Your task to perform on an android device: turn off location history Image 0: 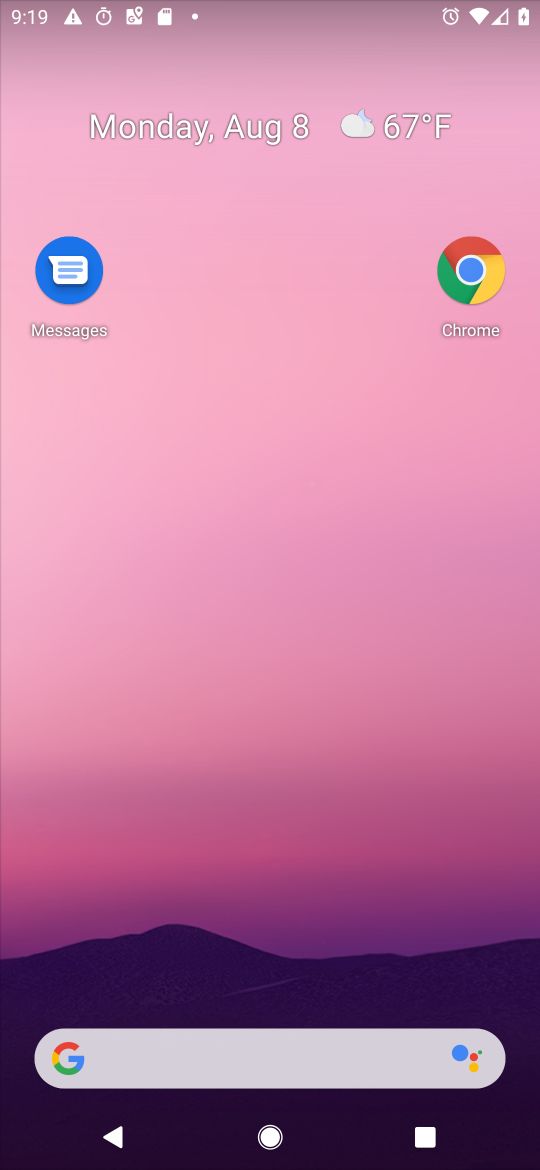
Step 0: drag from (222, 922) to (226, 249)
Your task to perform on an android device: turn off location history Image 1: 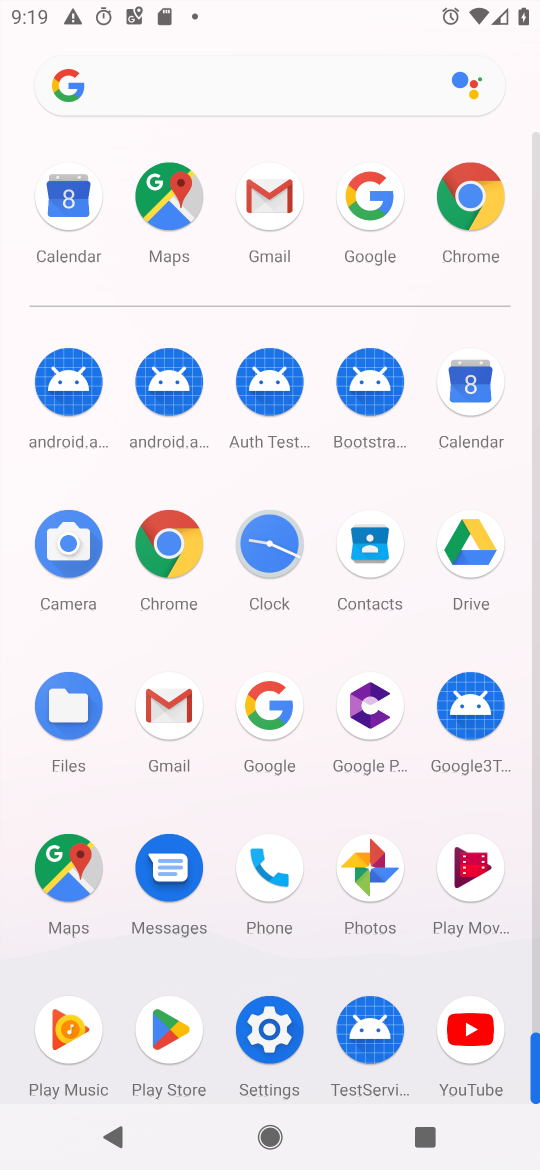
Step 1: drag from (337, 943) to (328, 431)
Your task to perform on an android device: turn off location history Image 2: 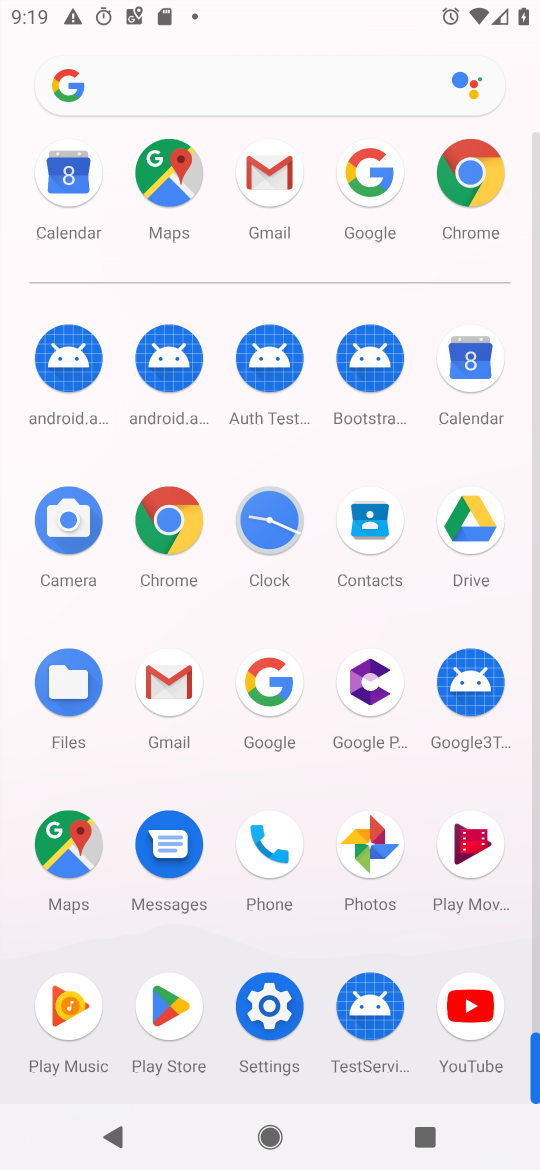
Step 2: click (261, 1002)
Your task to perform on an android device: turn off location history Image 3: 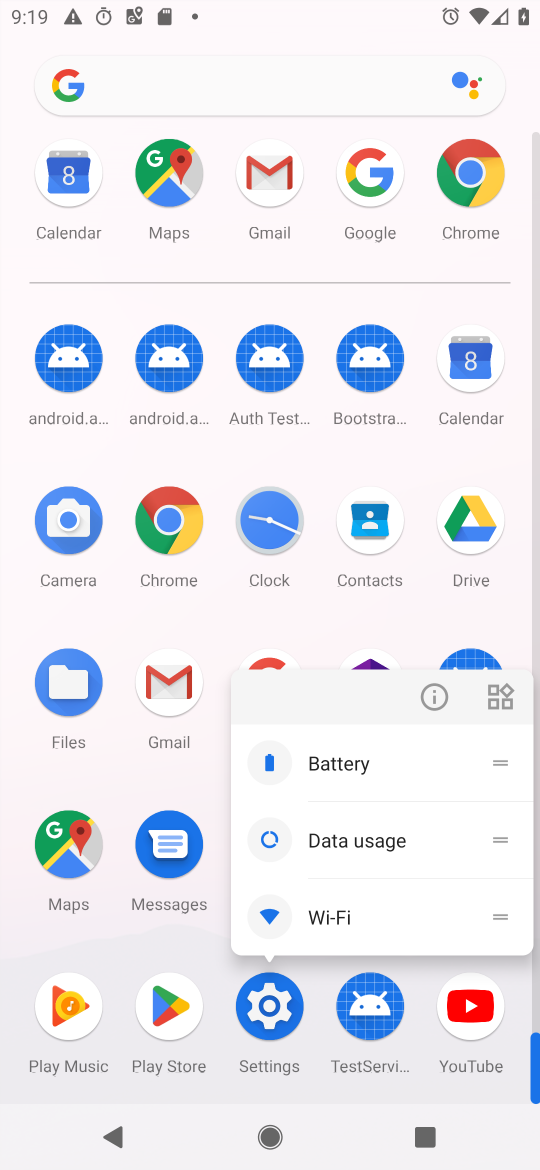
Step 3: click (417, 702)
Your task to perform on an android device: turn off location history Image 4: 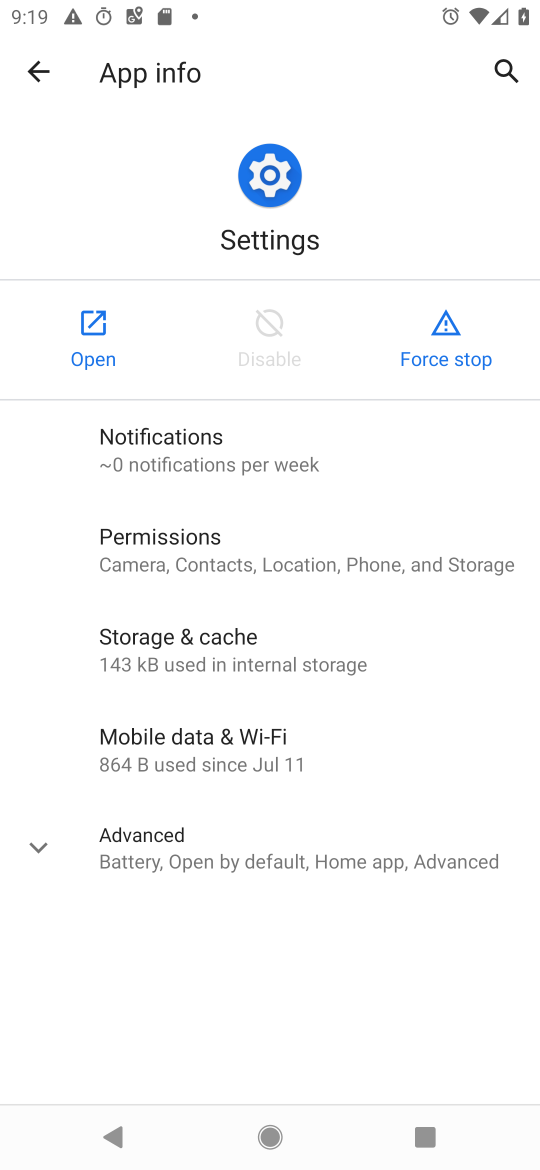
Step 4: click (74, 347)
Your task to perform on an android device: turn off location history Image 5: 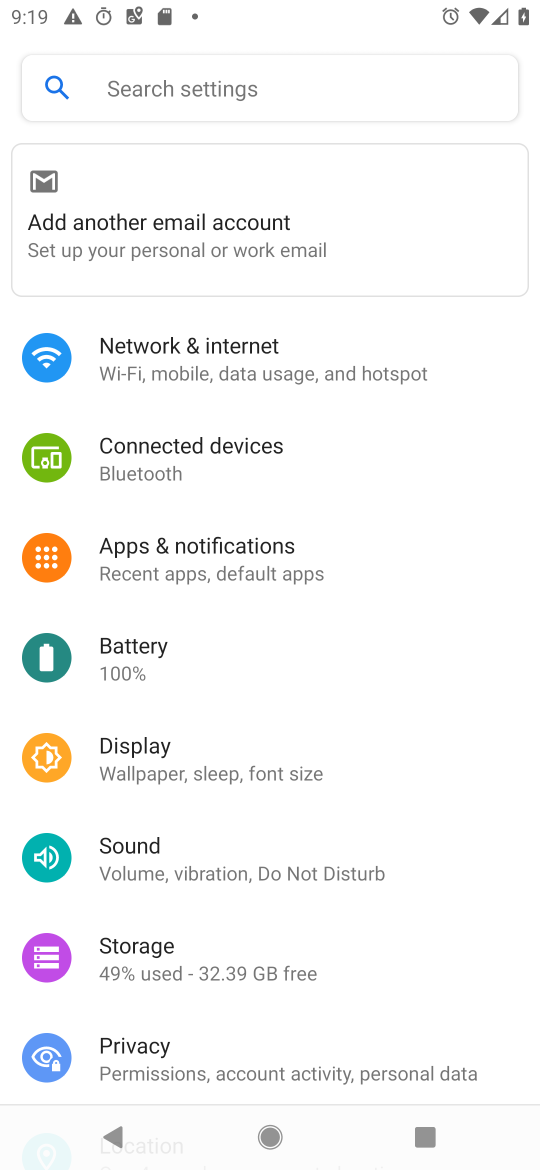
Step 5: drag from (248, 1026) to (343, 491)
Your task to perform on an android device: turn off location history Image 6: 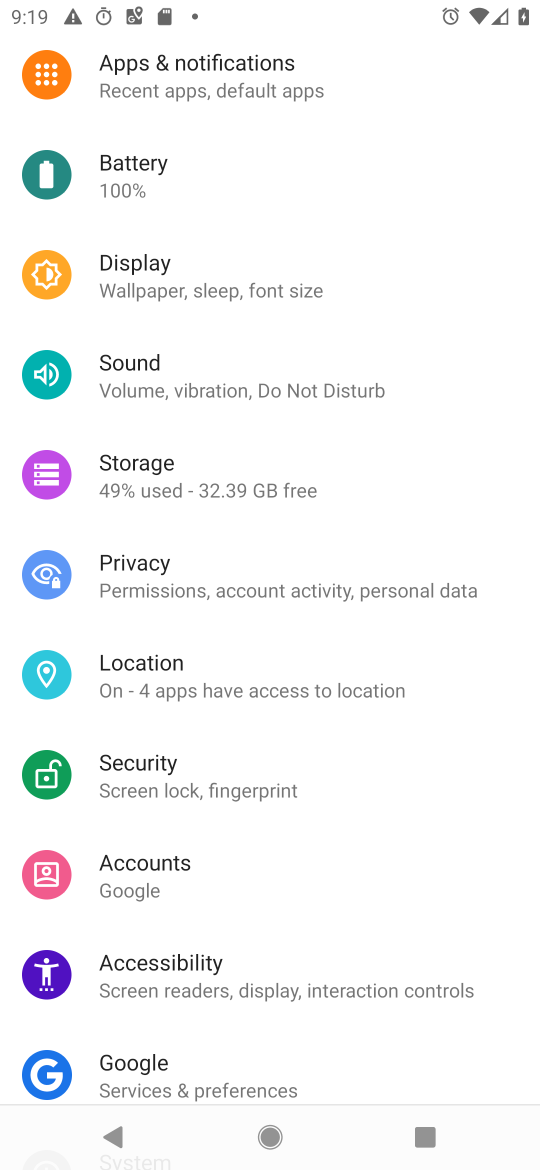
Step 6: click (165, 662)
Your task to perform on an android device: turn off location history Image 7: 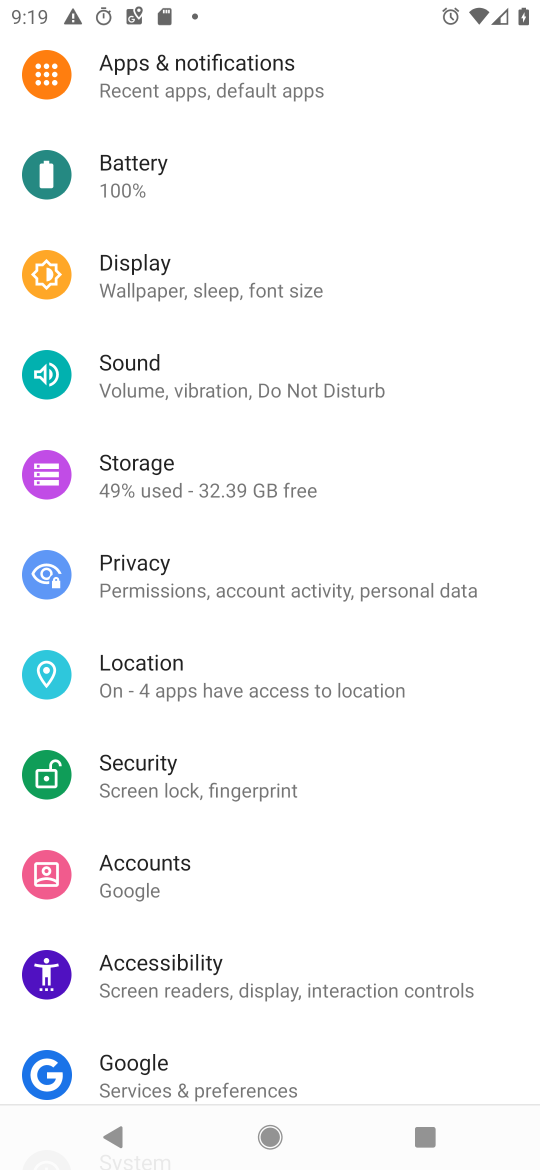
Step 7: click (165, 662)
Your task to perform on an android device: turn off location history Image 8: 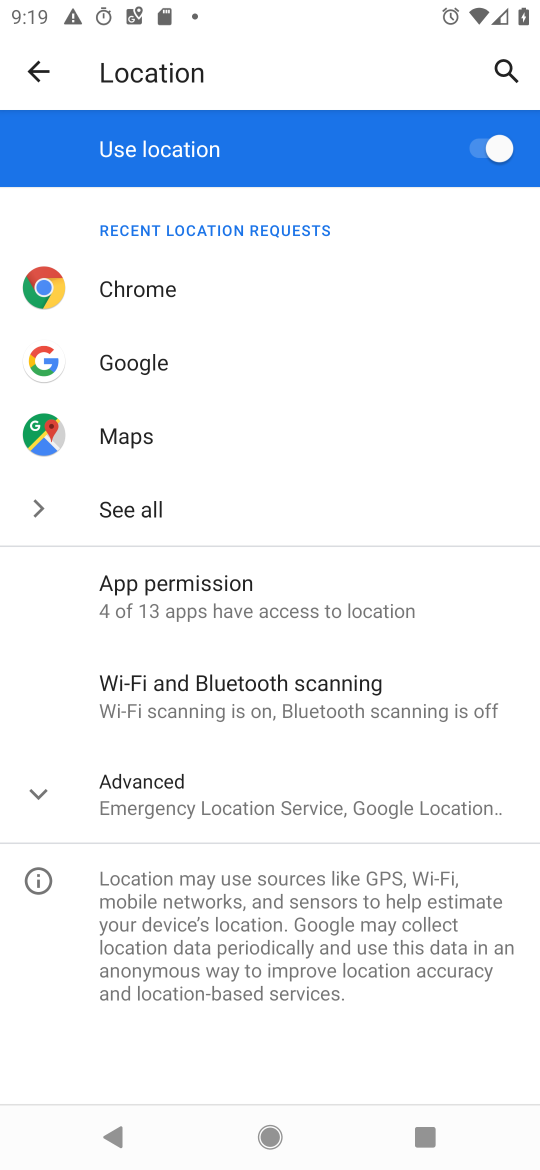
Step 8: click (159, 792)
Your task to perform on an android device: turn off location history Image 9: 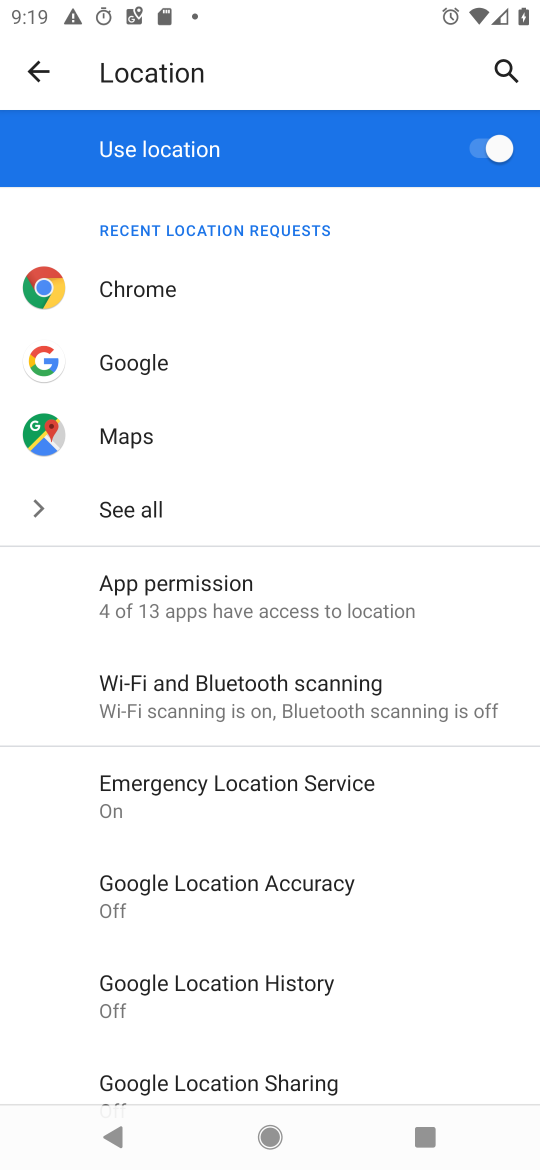
Step 9: click (260, 998)
Your task to perform on an android device: turn off location history Image 10: 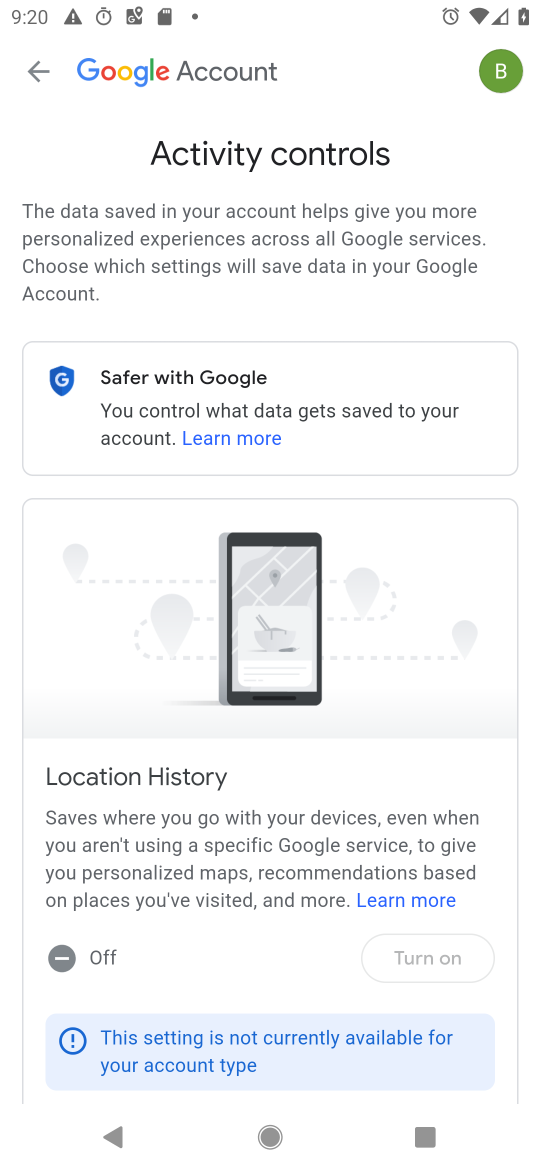
Step 10: task complete